Your task to perform on an android device: Go to eBay Image 0: 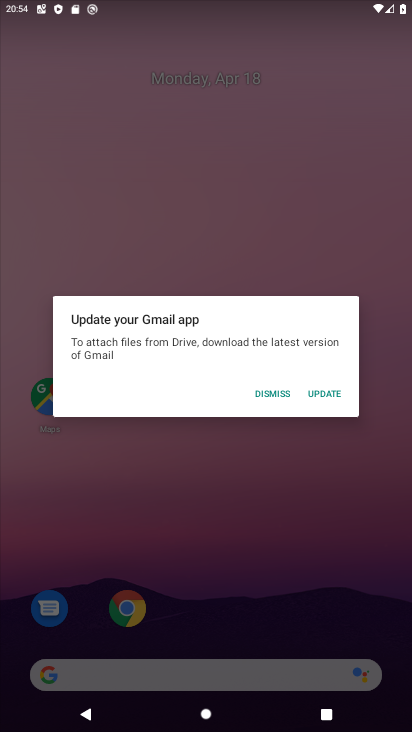
Step 0: press home button
Your task to perform on an android device: Go to eBay Image 1: 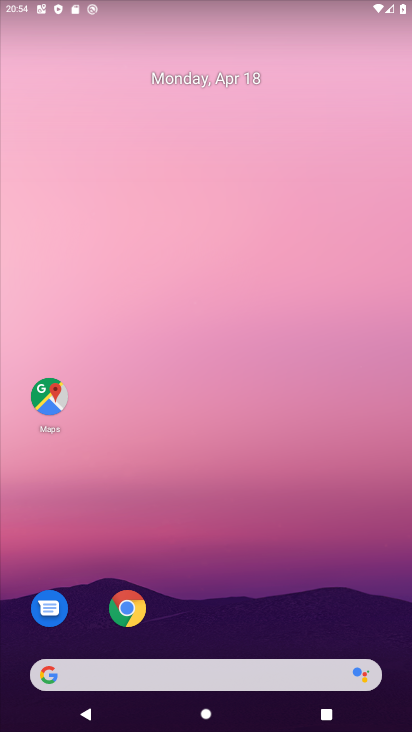
Step 1: drag from (221, 559) to (218, 213)
Your task to perform on an android device: Go to eBay Image 2: 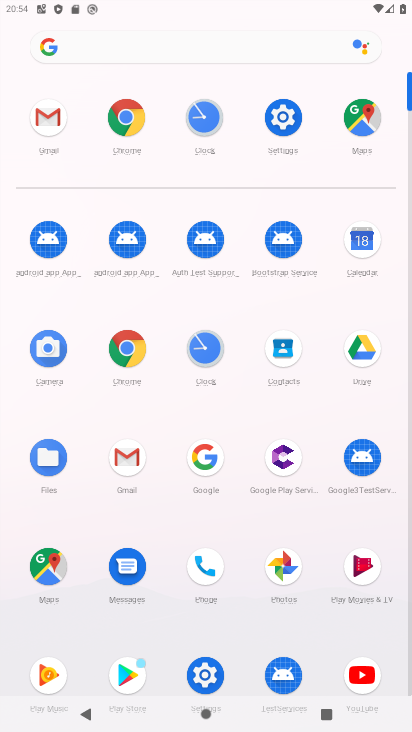
Step 2: click (206, 456)
Your task to perform on an android device: Go to eBay Image 3: 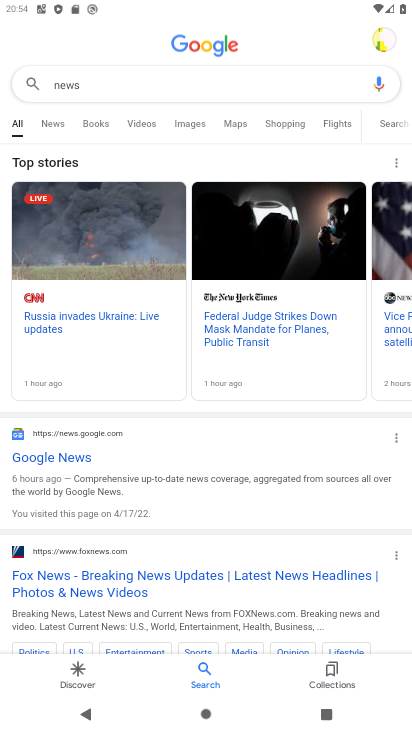
Step 3: click (134, 86)
Your task to perform on an android device: Go to eBay Image 4: 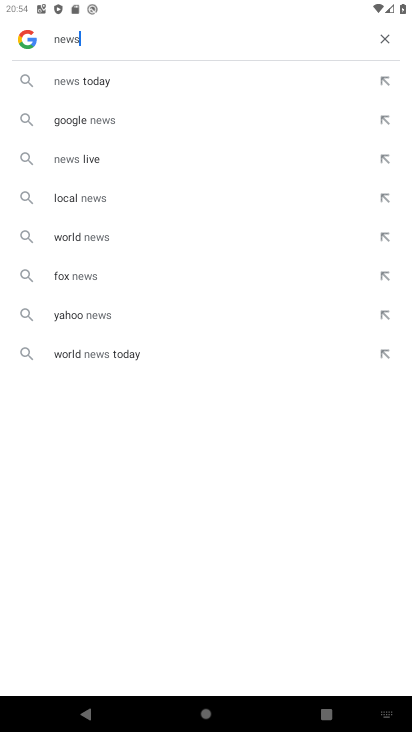
Step 4: click (384, 37)
Your task to perform on an android device: Go to eBay Image 5: 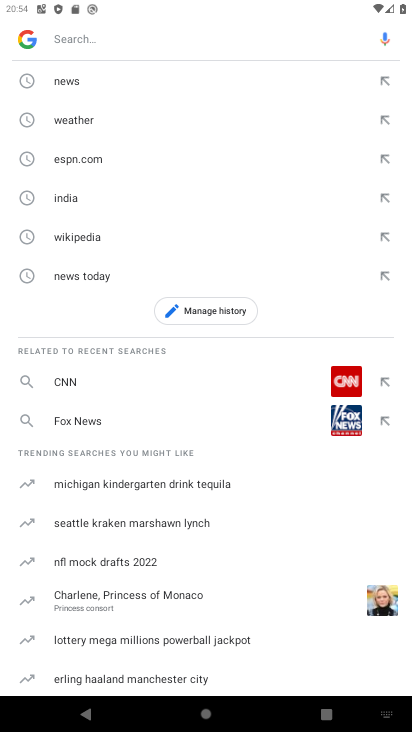
Step 5: type "ebay"
Your task to perform on an android device: Go to eBay Image 6: 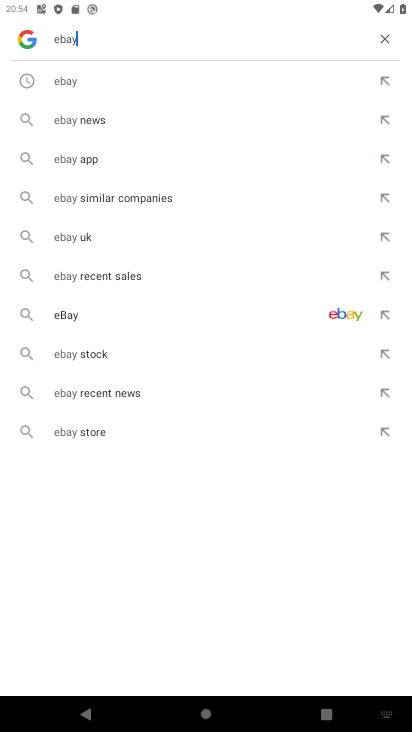
Step 6: click (89, 78)
Your task to perform on an android device: Go to eBay Image 7: 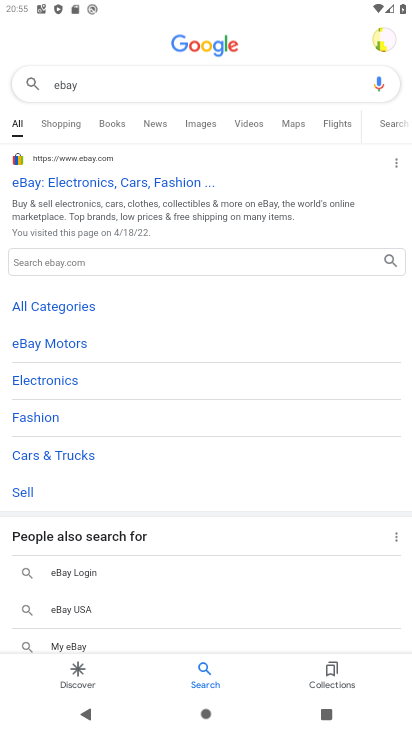
Step 7: task complete